Your task to perform on an android device: turn on wifi Image 0: 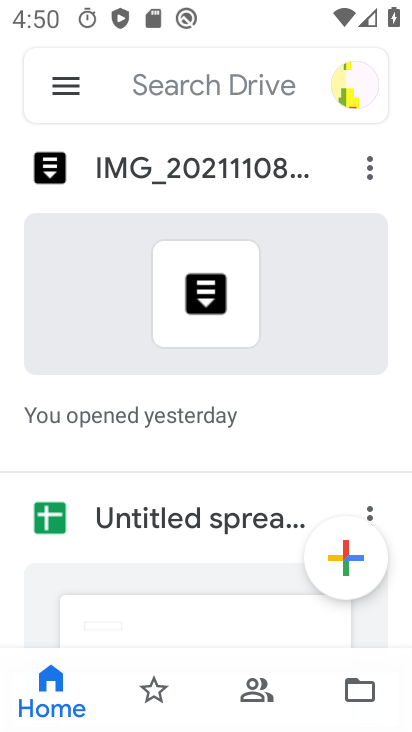
Step 0: press home button
Your task to perform on an android device: turn on wifi Image 1: 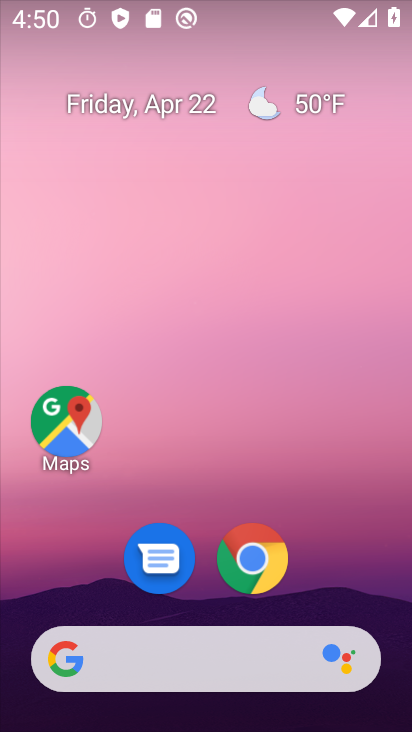
Step 1: drag from (337, 571) to (284, 107)
Your task to perform on an android device: turn on wifi Image 2: 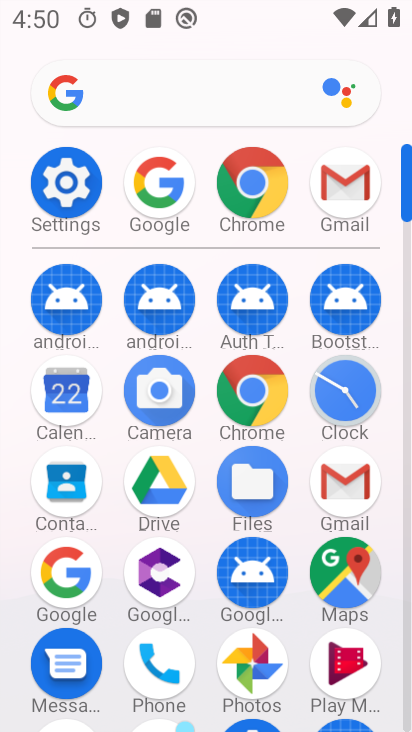
Step 2: click (50, 189)
Your task to perform on an android device: turn on wifi Image 3: 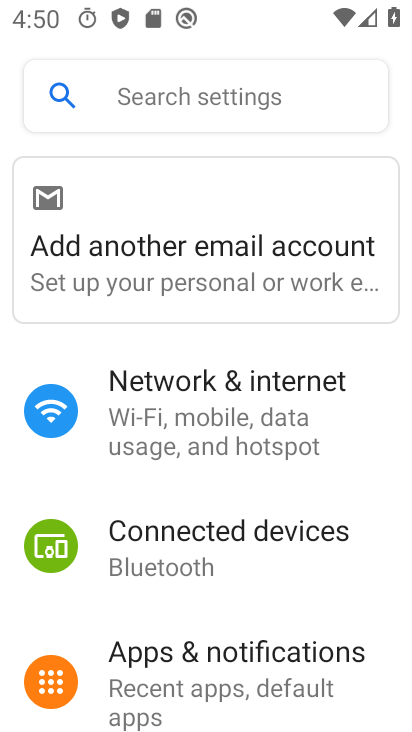
Step 3: click (211, 415)
Your task to perform on an android device: turn on wifi Image 4: 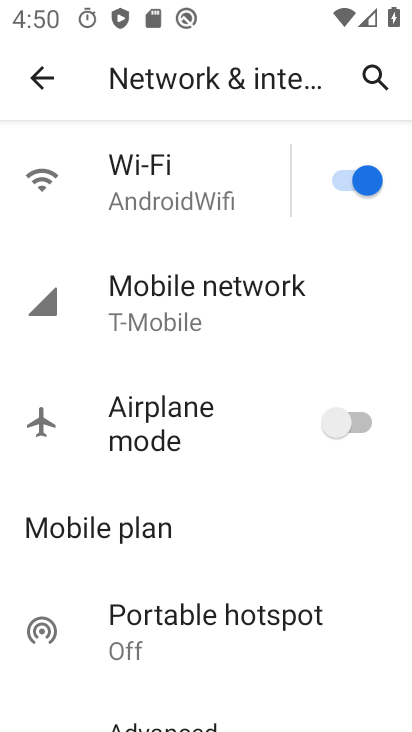
Step 4: task complete